Your task to perform on an android device: manage bookmarks in the chrome app Image 0: 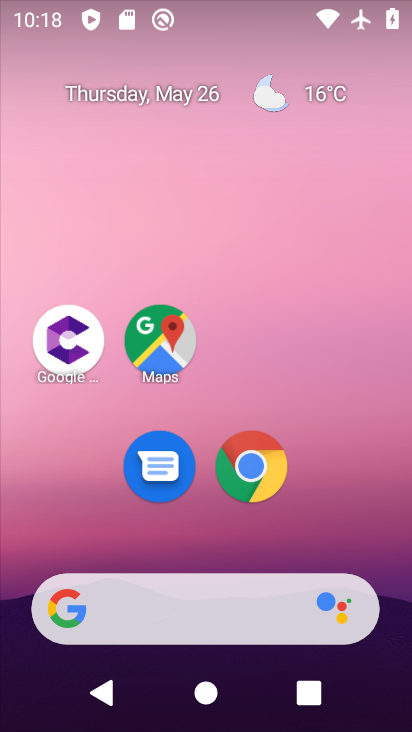
Step 0: click (252, 465)
Your task to perform on an android device: manage bookmarks in the chrome app Image 1: 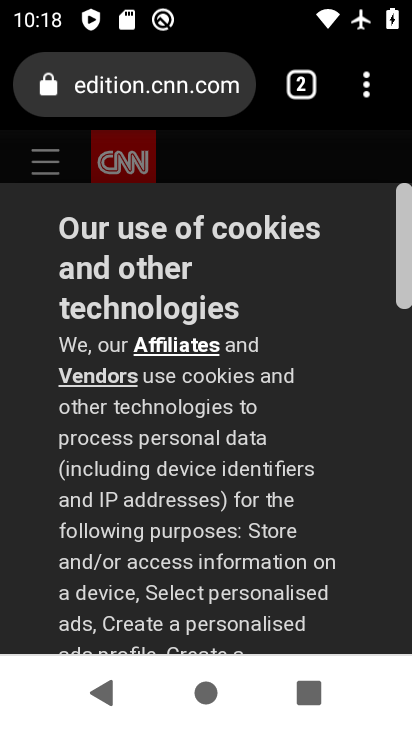
Step 1: click (369, 78)
Your task to perform on an android device: manage bookmarks in the chrome app Image 2: 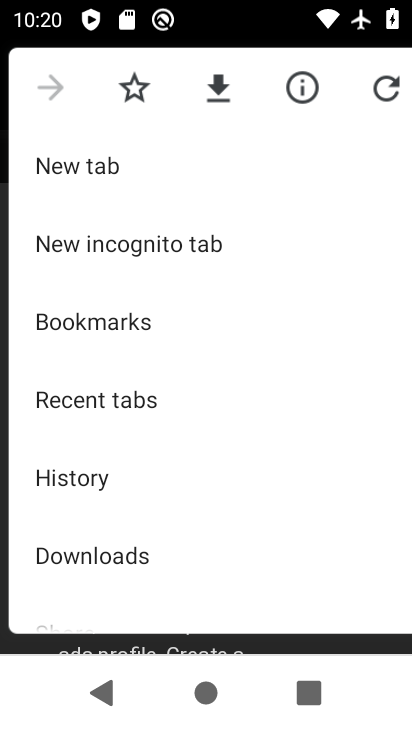
Step 2: click (116, 317)
Your task to perform on an android device: manage bookmarks in the chrome app Image 3: 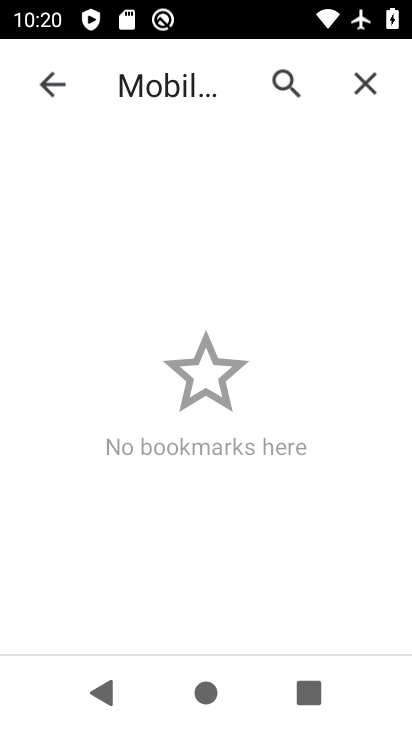
Step 3: task complete